Your task to perform on an android device: When is my next meeting? Image 0: 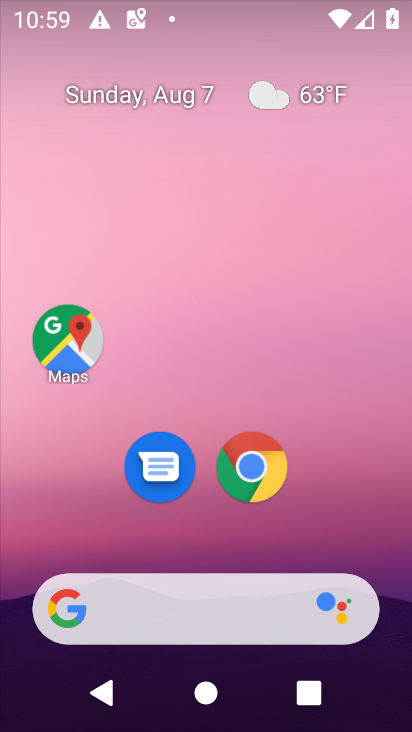
Step 0: click (177, 198)
Your task to perform on an android device: When is my next meeting? Image 1: 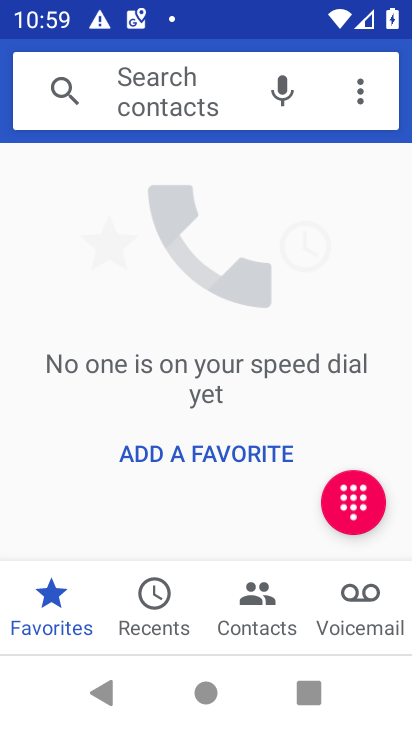
Step 1: press back button
Your task to perform on an android device: When is my next meeting? Image 2: 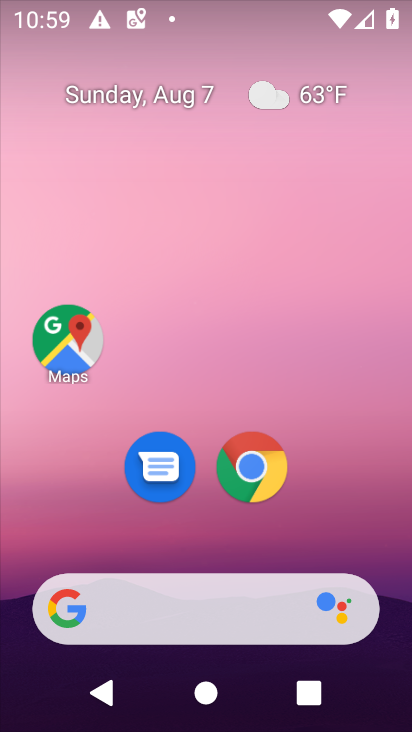
Step 2: drag from (195, 590) to (181, 310)
Your task to perform on an android device: When is my next meeting? Image 3: 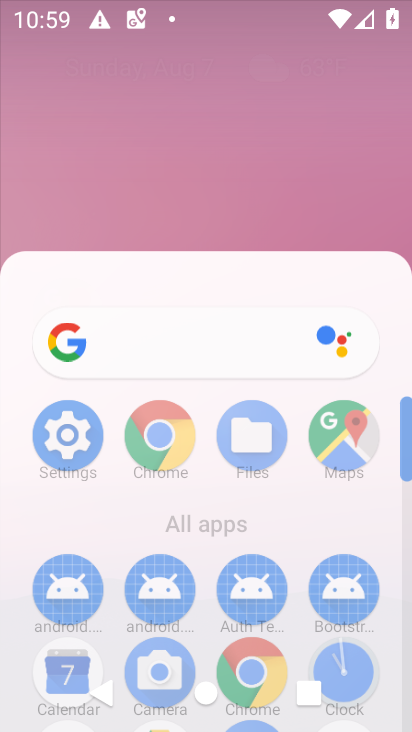
Step 3: drag from (220, 632) to (220, 252)
Your task to perform on an android device: When is my next meeting? Image 4: 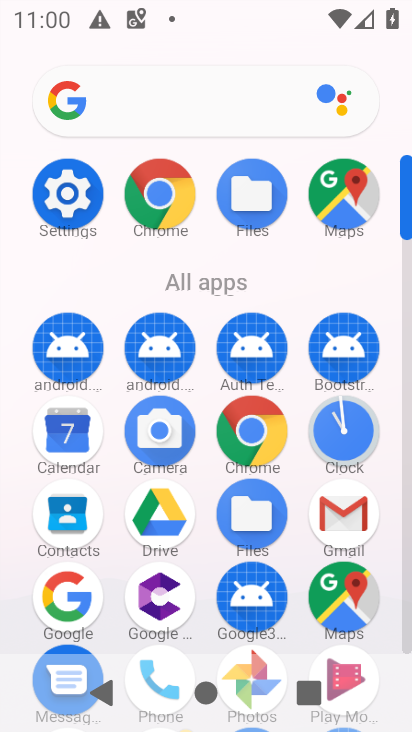
Step 4: click (74, 448)
Your task to perform on an android device: When is my next meeting? Image 5: 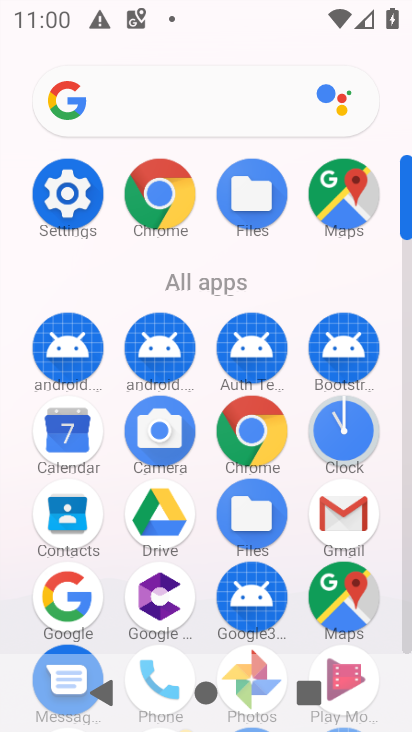
Step 5: click (74, 448)
Your task to perform on an android device: When is my next meeting? Image 6: 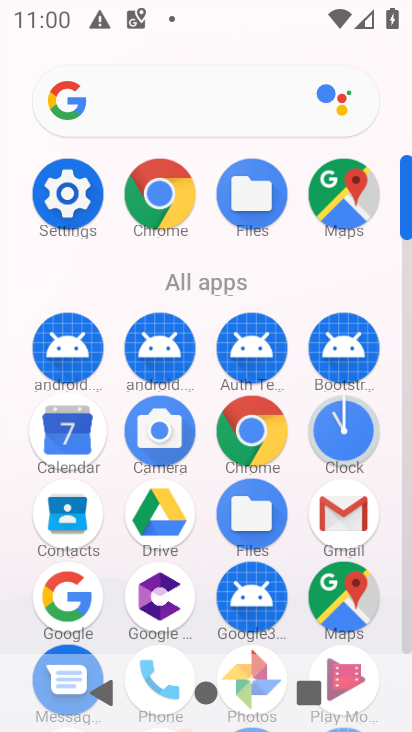
Step 6: click (71, 446)
Your task to perform on an android device: When is my next meeting? Image 7: 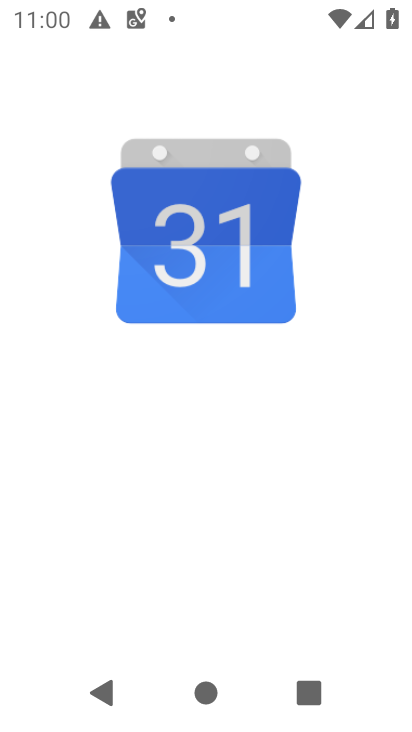
Step 7: click (74, 446)
Your task to perform on an android device: When is my next meeting? Image 8: 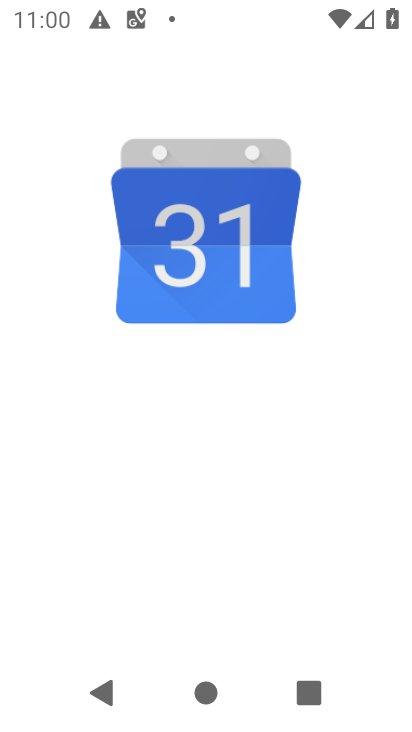
Step 8: click (74, 446)
Your task to perform on an android device: When is my next meeting? Image 9: 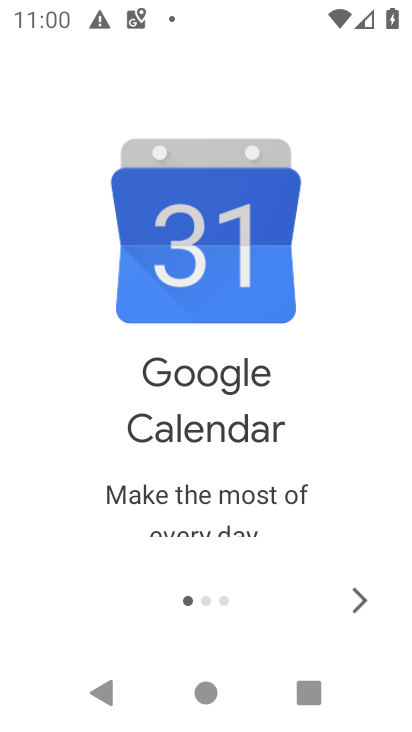
Step 9: click (354, 588)
Your task to perform on an android device: When is my next meeting? Image 10: 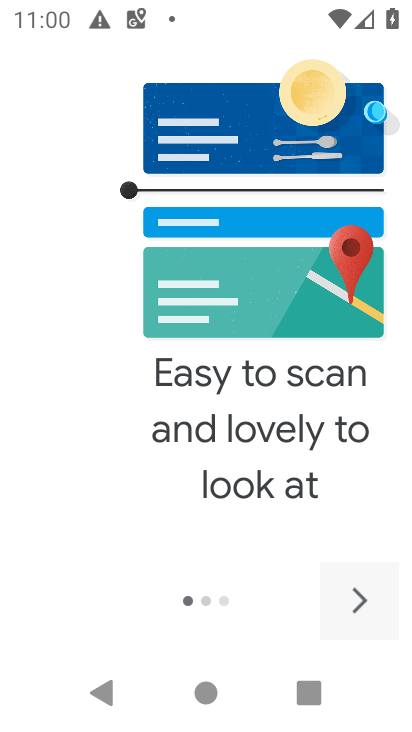
Step 10: click (371, 611)
Your task to perform on an android device: When is my next meeting? Image 11: 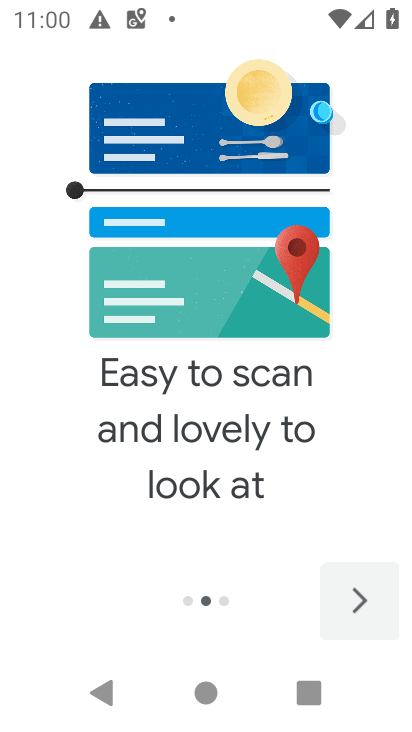
Step 11: click (377, 602)
Your task to perform on an android device: When is my next meeting? Image 12: 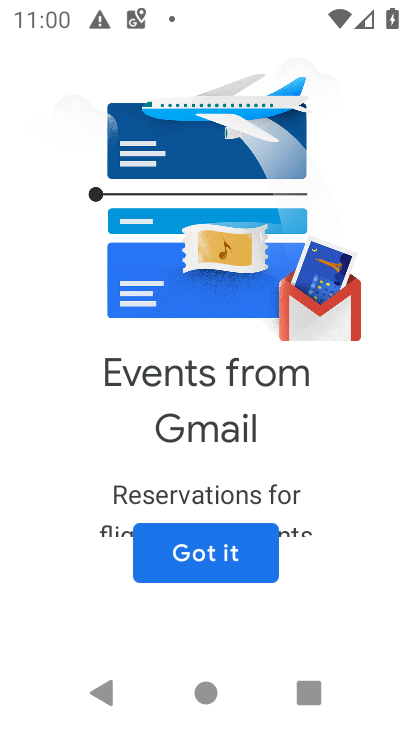
Step 12: click (339, 590)
Your task to perform on an android device: When is my next meeting? Image 13: 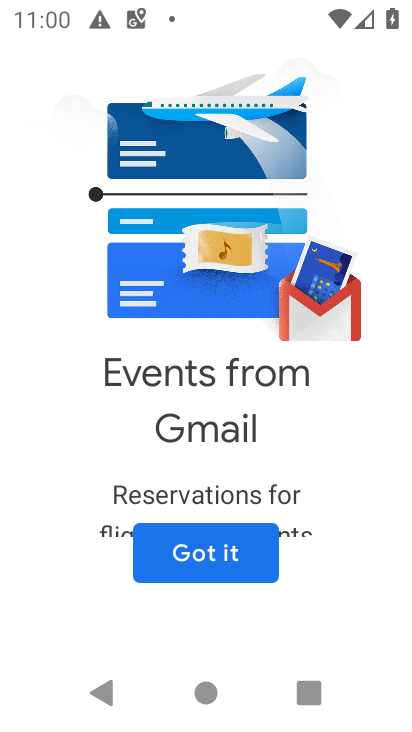
Step 13: click (339, 590)
Your task to perform on an android device: When is my next meeting? Image 14: 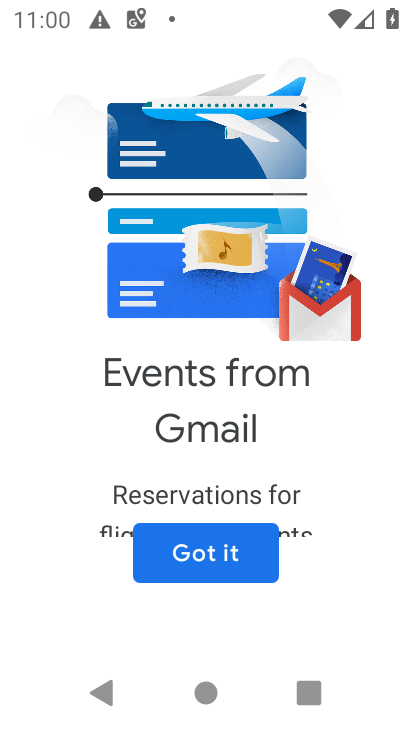
Step 14: click (334, 571)
Your task to perform on an android device: When is my next meeting? Image 15: 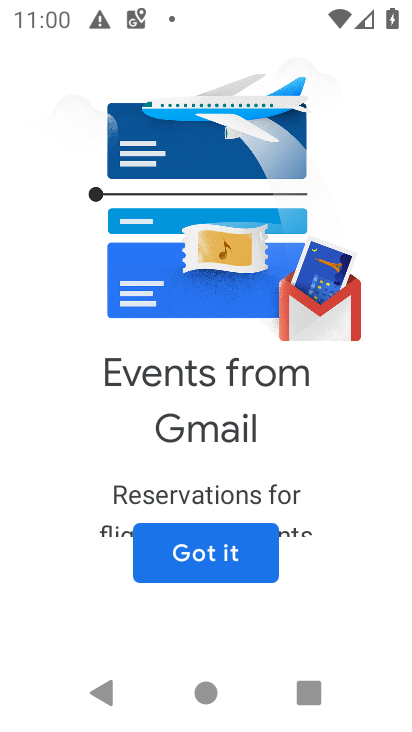
Step 15: click (232, 538)
Your task to perform on an android device: When is my next meeting? Image 16: 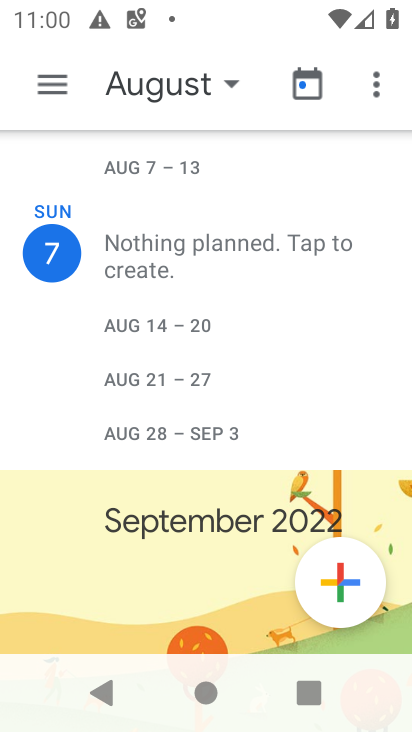
Step 16: click (240, 89)
Your task to perform on an android device: When is my next meeting? Image 17: 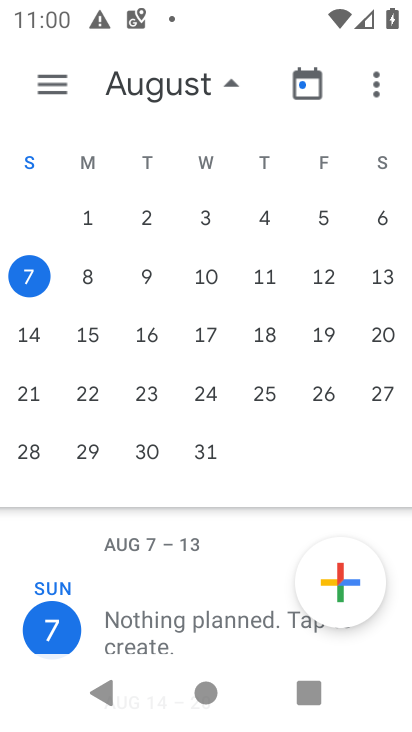
Step 17: click (80, 279)
Your task to perform on an android device: When is my next meeting? Image 18: 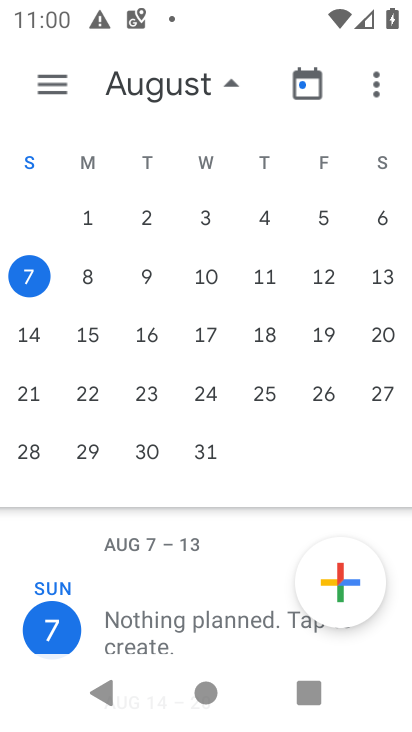
Step 18: click (80, 279)
Your task to perform on an android device: When is my next meeting? Image 19: 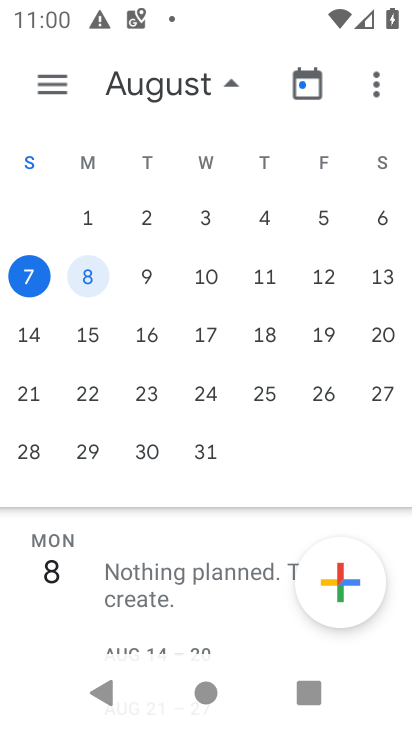
Step 19: click (81, 280)
Your task to perform on an android device: When is my next meeting? Image 20: 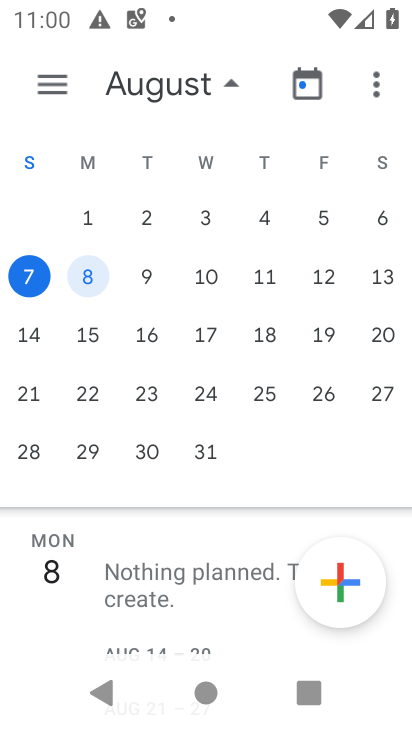
Step 20: click (83, 281)
Your task to perform on an android device: When is my next meeting? Image 21: 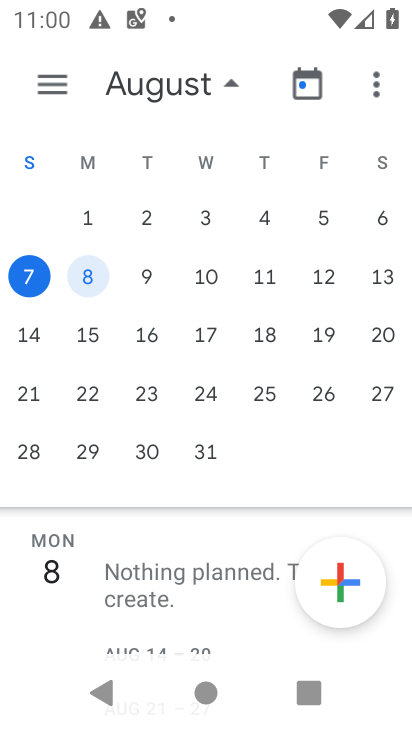
Step 21: click (83, 281)
Your task to perform on an android device: When is my next meeting? Image 22: 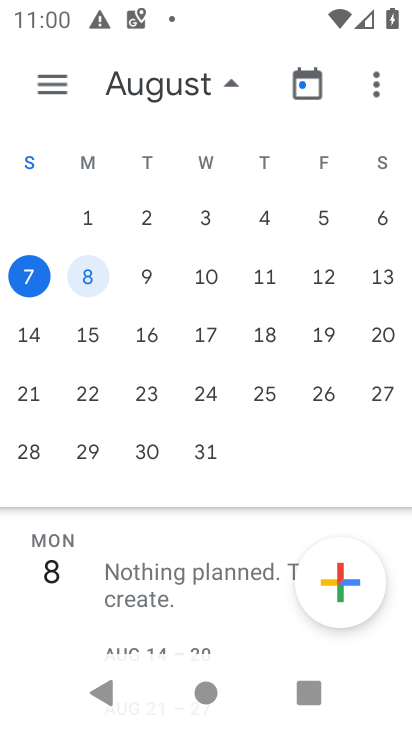
Step 22: task complete